Your task to perform on an android device: toggle airplane mode Image 0: 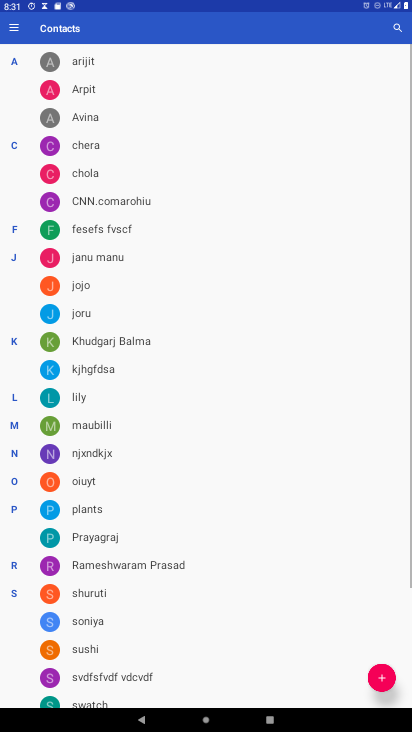
Step 0: press home button
Your task to perform on an android device: toggle airplane mode Image 1: 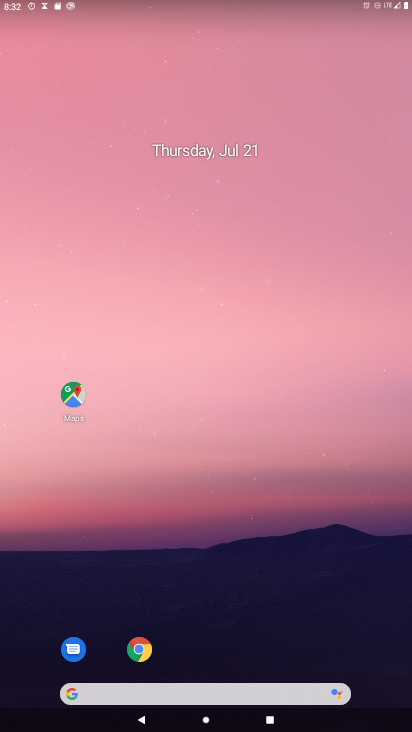
Step 1: drag from (279, 11) to (268, 516)
Your task to perform on an android device: toggle airplane mode Image 2: 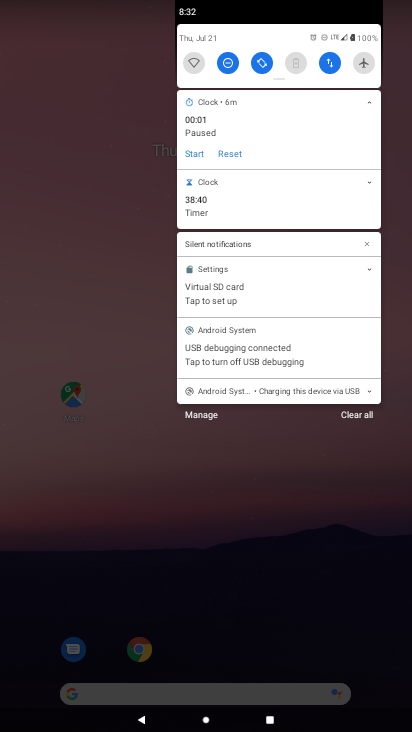
Step 2: click (364, 63)
Your task to perform on an android device: toggle airplane mode Image 3: 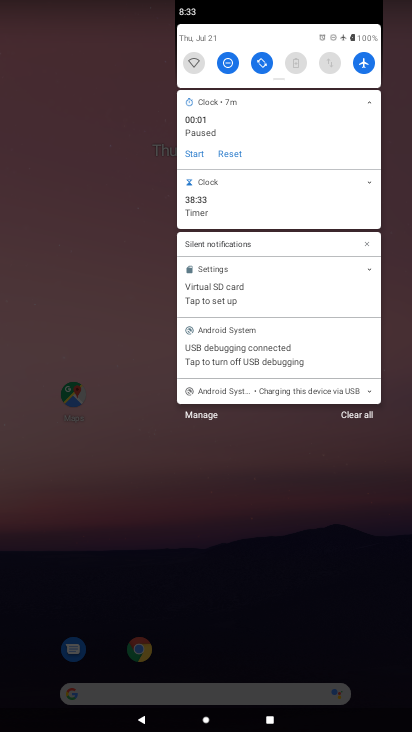
Step 3: task complete